Your task to perform on an android device: manage bookmarks in the chrome app Image 0: 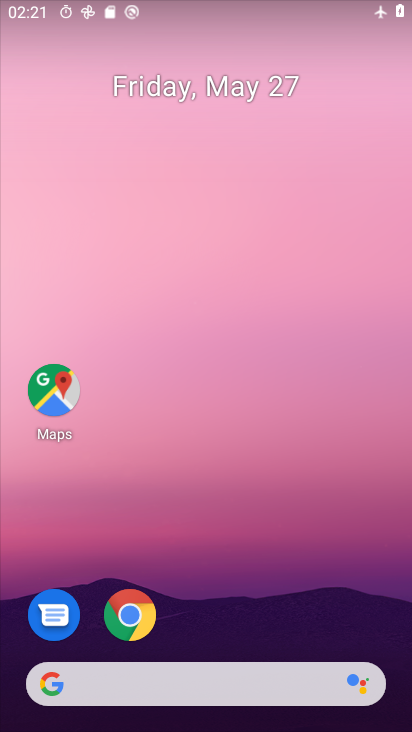
Step 0: drag from (322, 638) to (345, 354)
Your task to perform on an android device: manage bookmarks in the chrome app Image 1: 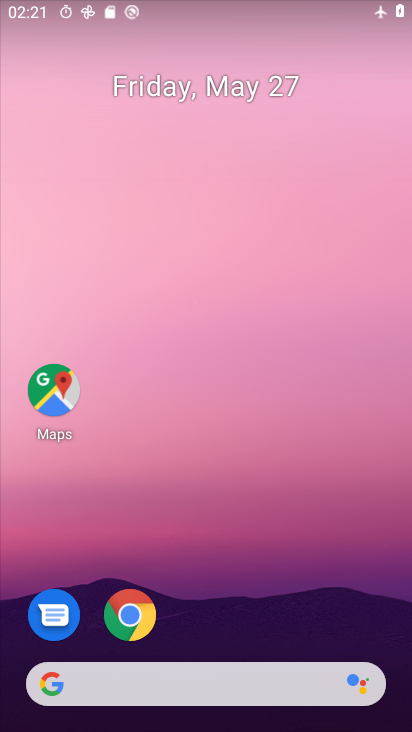
Step 1: drag from (354, 579) to (374, 247)
Your task to perform on an android device: manage bookmarks in the chrome app Image 2: 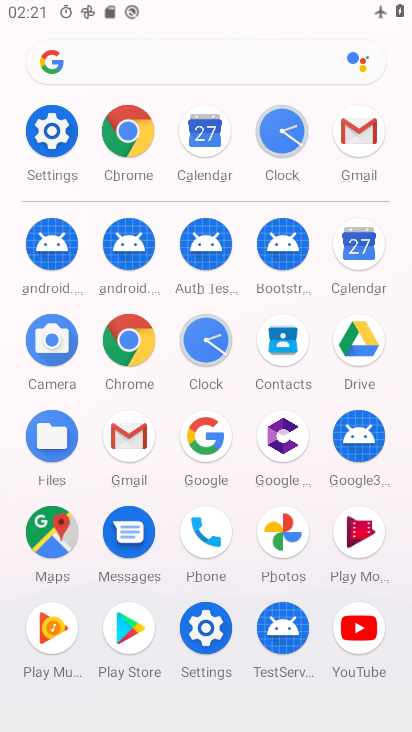
Step 2: click (146, 342)
Your task to perform on an android device: manage bookmarks in the chrome app Image 3: 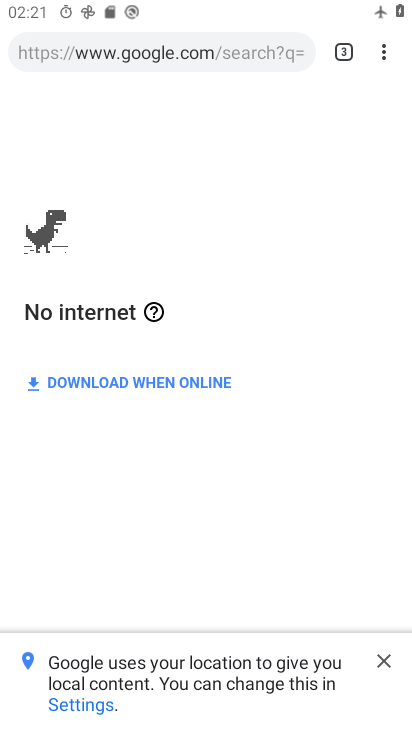
Step 3: click (386, 53)
Your task to perform on an android device: manage bookmarks in the chrome app Image 4: 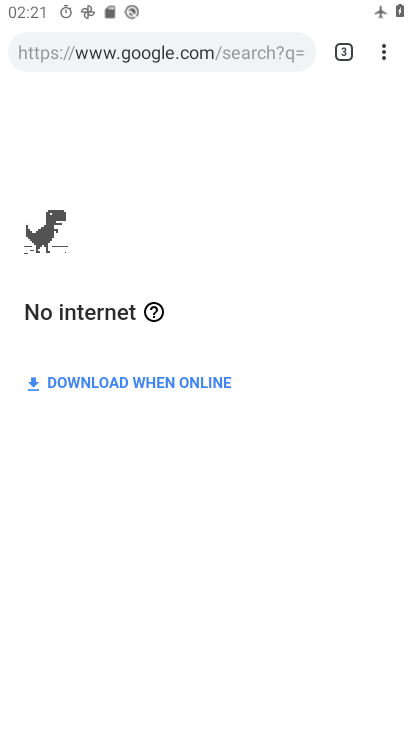
Step 4: click (387, 53)
Your task to perform on an android device: manage bookmarks in the chrome app Image 5: 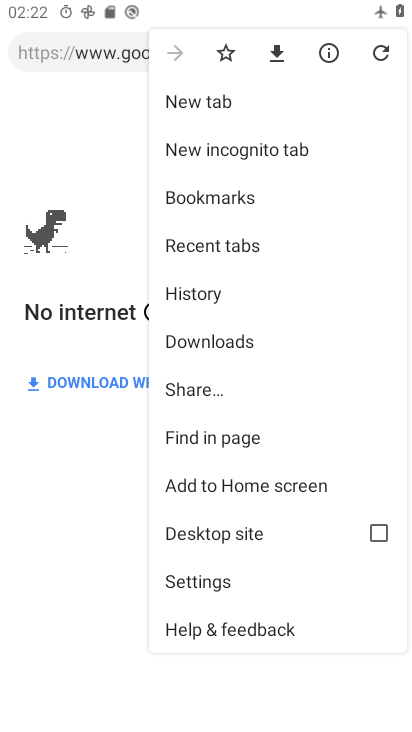
Step 5: click (232, 209)
Your task to perform on an android device: manage bookmarks in the chrome app Image 6: 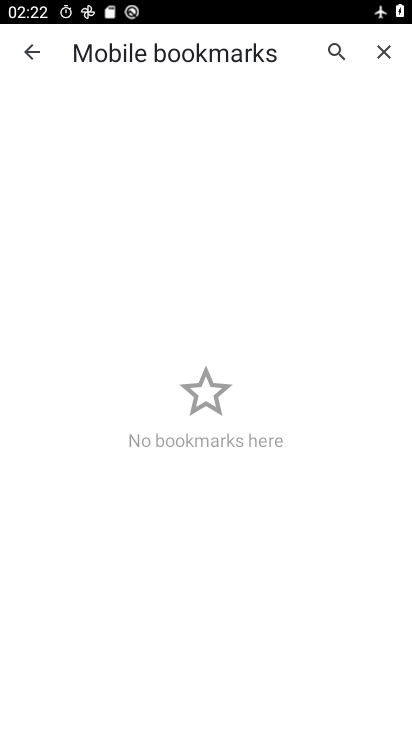
Step 6: task complete